Your task to perform on an android device: Search for "usb-a to usb-b" on bestbuy.com, select the first entry, add it to the cart, then select checkout. Image 0: 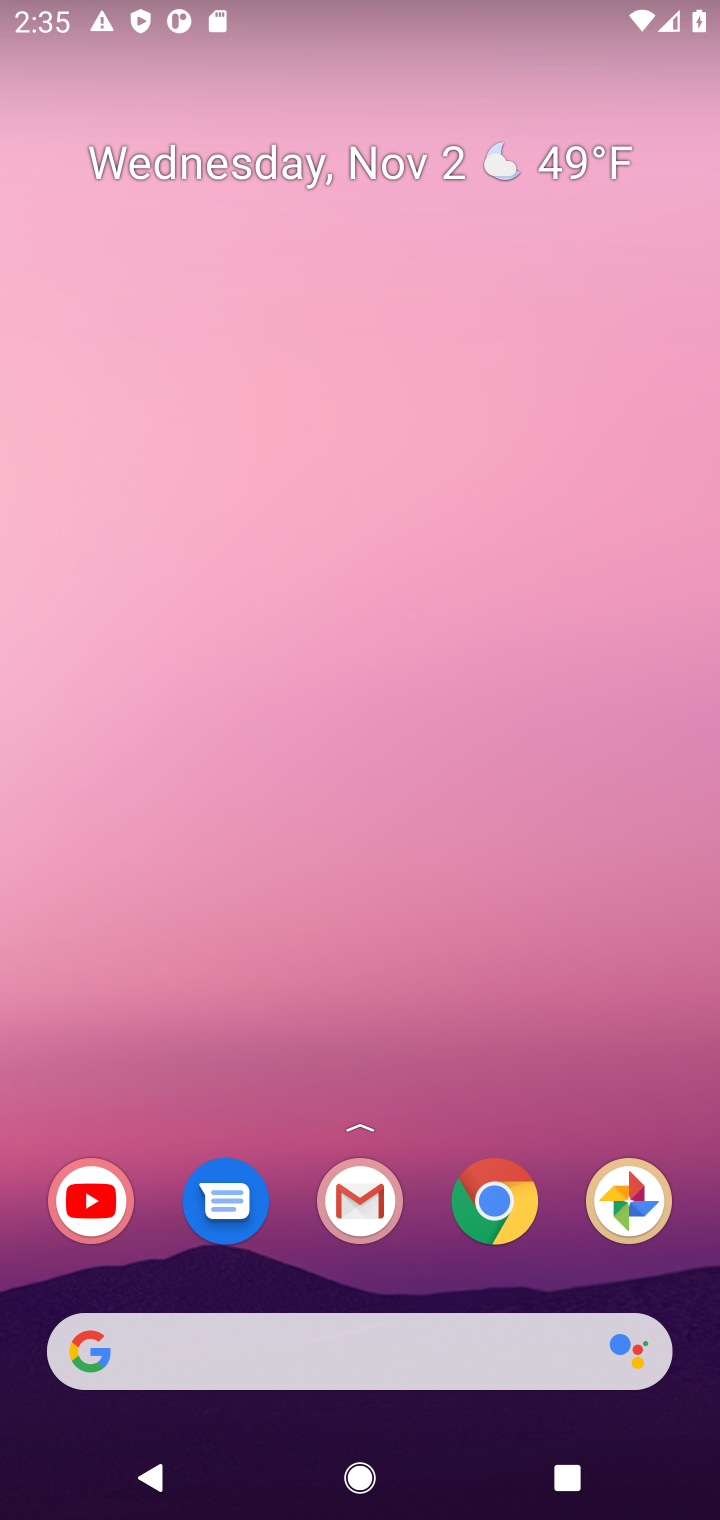
Step 0: click (487, 1199)
Your task to perform on an android device: Search for "usb-a to usb-b" on bestbuy.com, select the first entry, add it to the cart, then select checkout. Image 1: 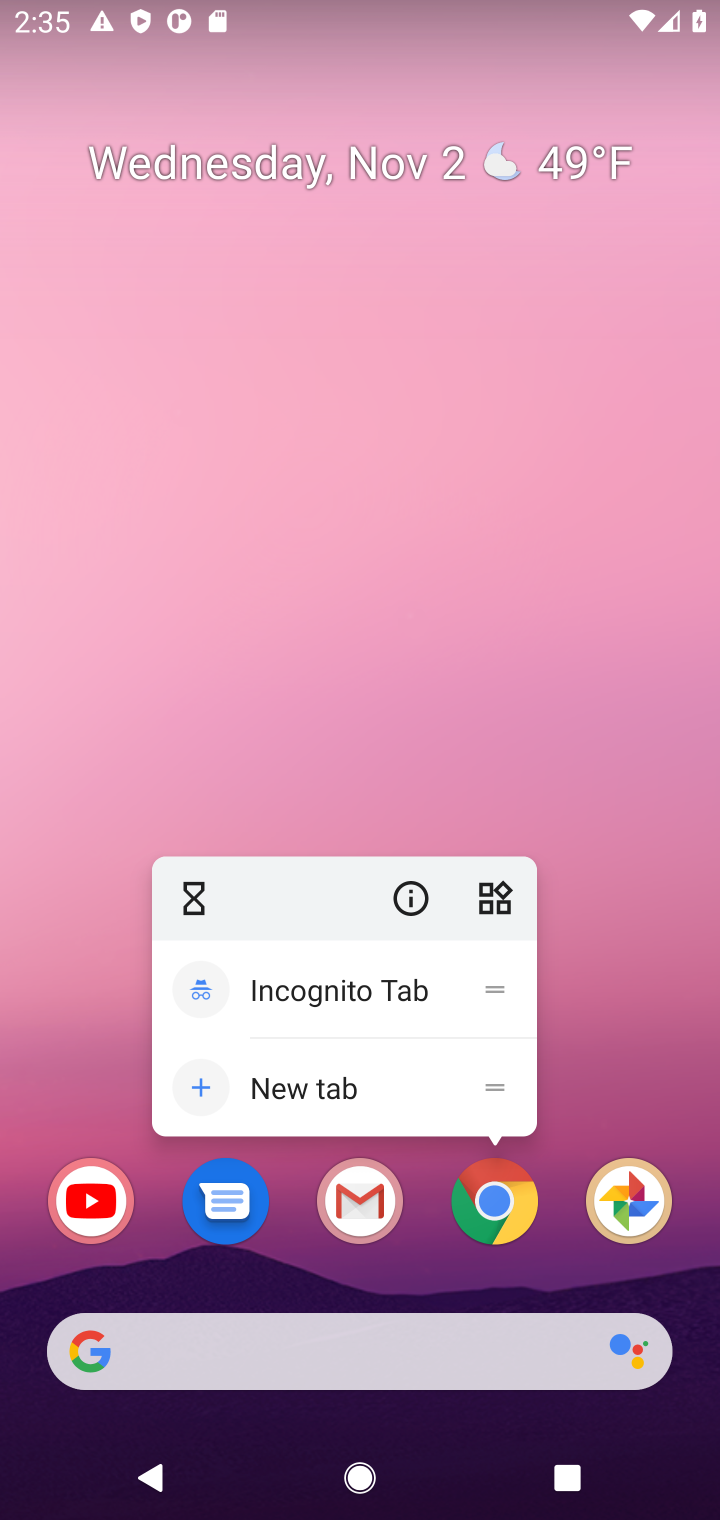
Step 1: click (503, 1204)
Your task to perform on an android device: Search for "usb-a to usb-b" on bestbuy.com, select the first entry, add it to the cart, then select checkout. Image 2: 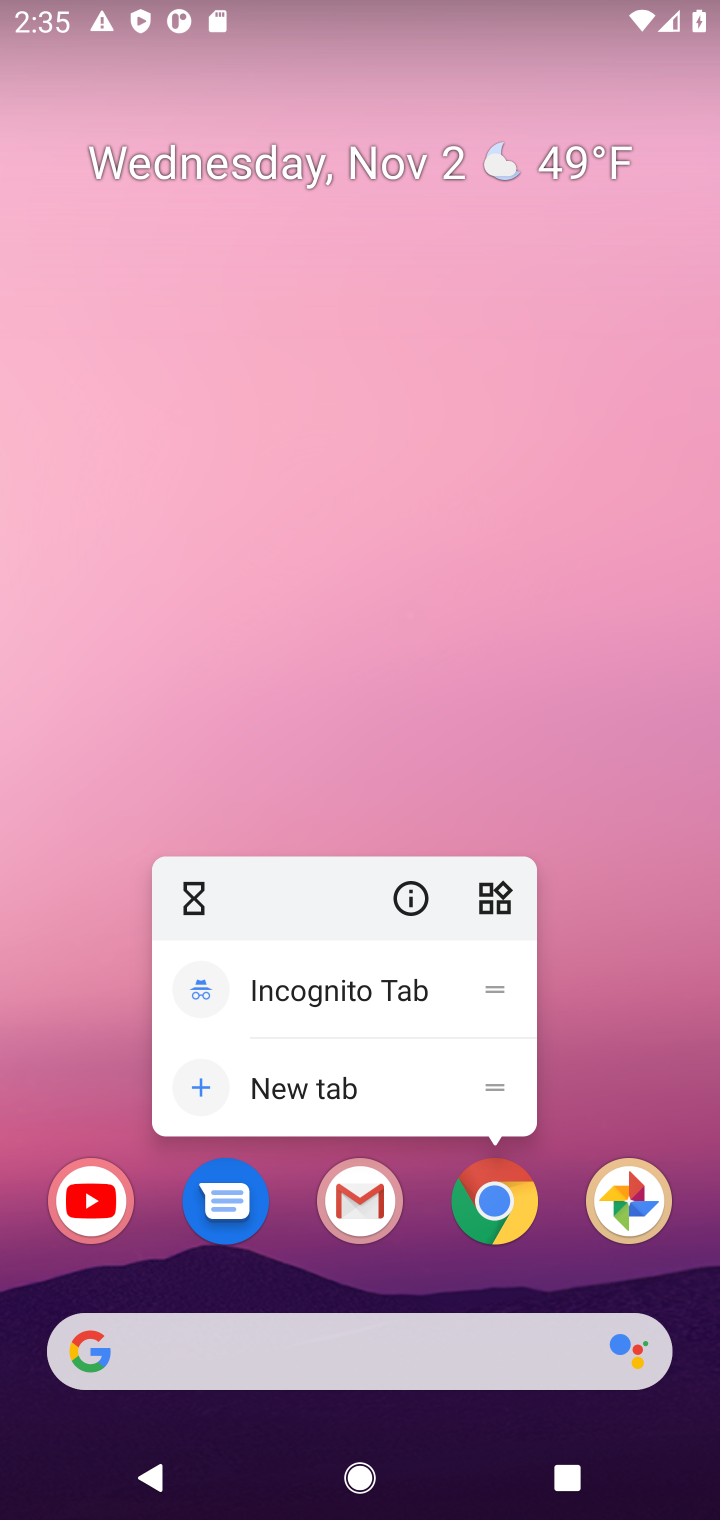
Step 2: click (502, 1205)
Your task to perform on an android device: Search for "usb-a to usb-b" on bestbuy.com, select the first entry, add it to the cart, then select checkout. Image 3: 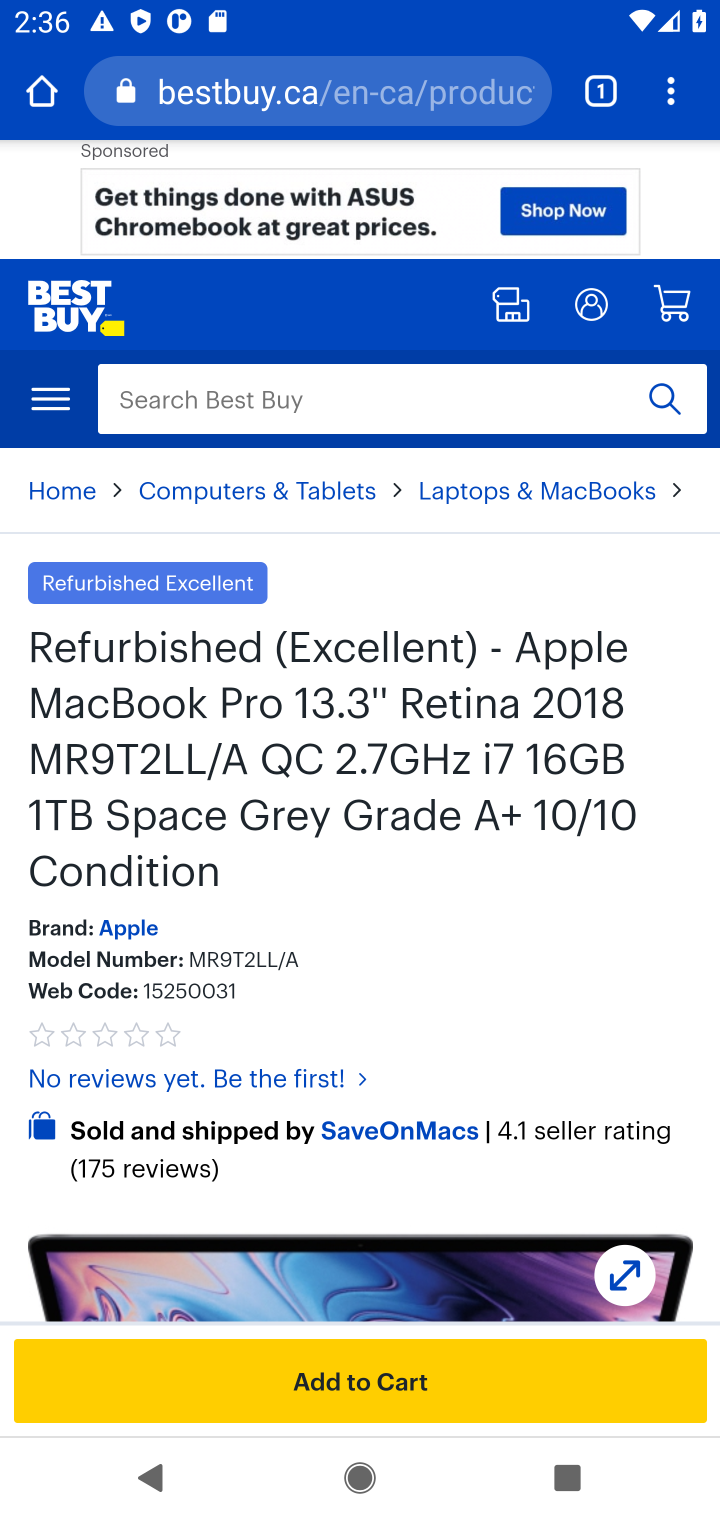
Step 3: click (226, 400)
Your task to perform on an android device: Search for "usb-a to usb-b" on bestbuy.com, select the first entry, add it to the cart, then select checkout. Image 4: 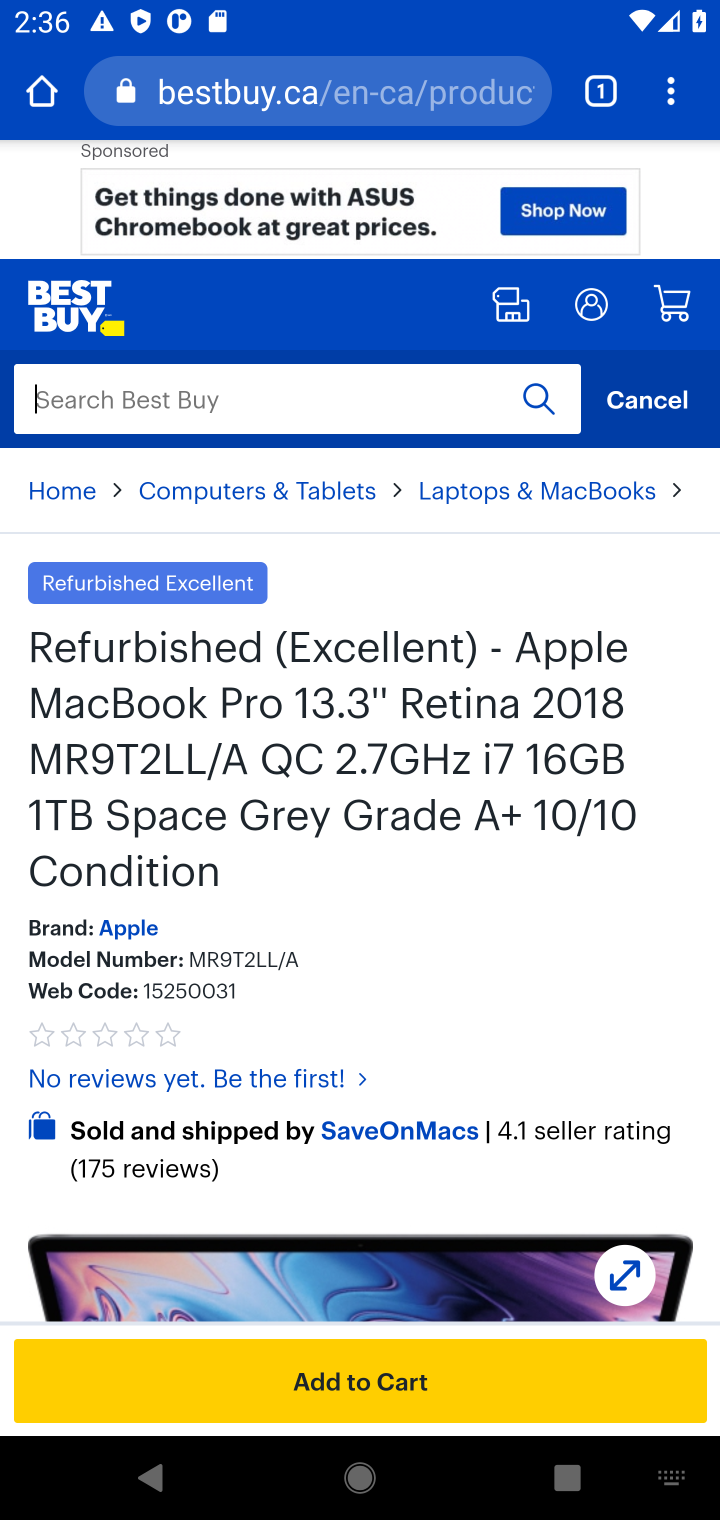
Step 4: press enter
Your task to perform on an android device: Search for "usb-a to usb-b" on bestbuy.com, select the first entry, add it to the cart, then select checkout. Image 5: 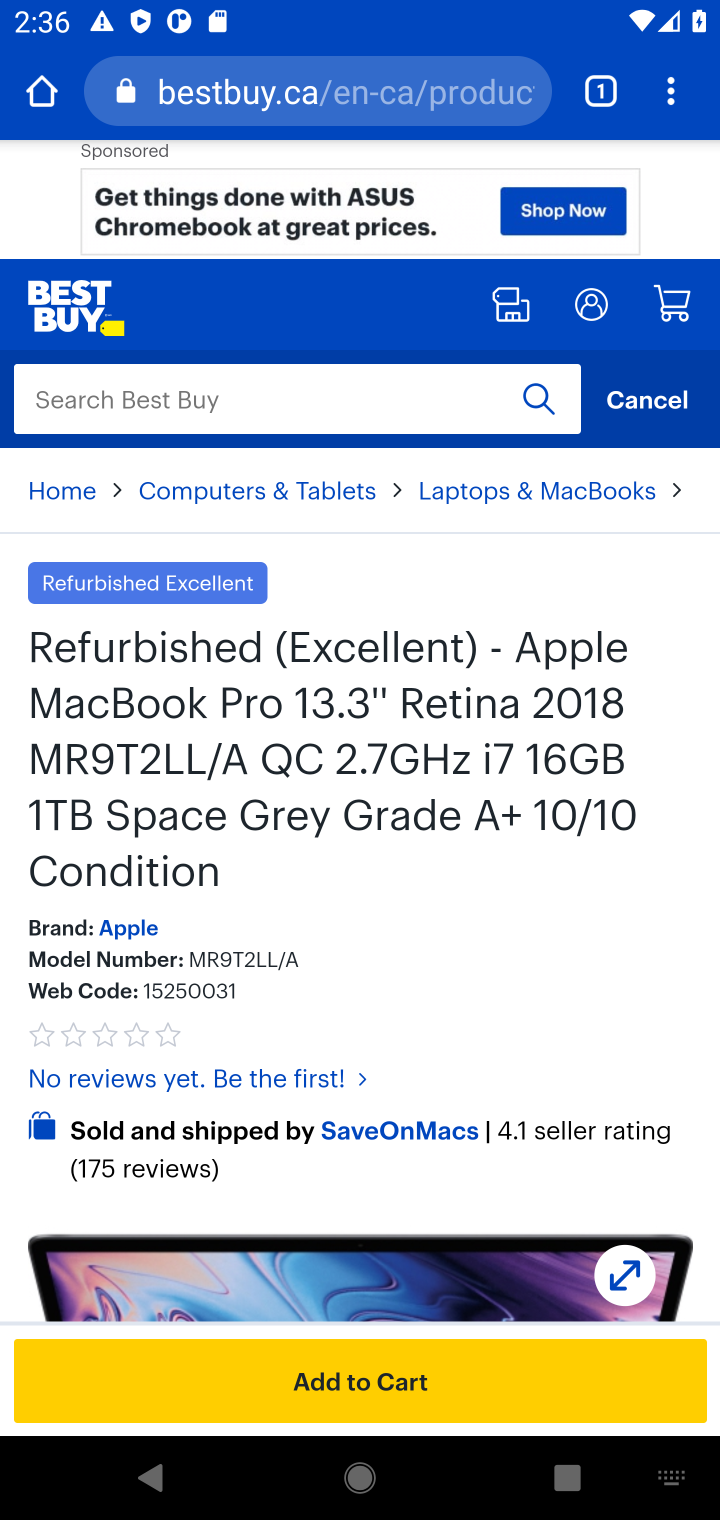
Step 5: type "usb-a to usb-b"
Your task to perform on an android device: Search for "usb-a to usb-b" on bestbuy.com, select the first entry, add it to the cart, then select checkout. Image 6: 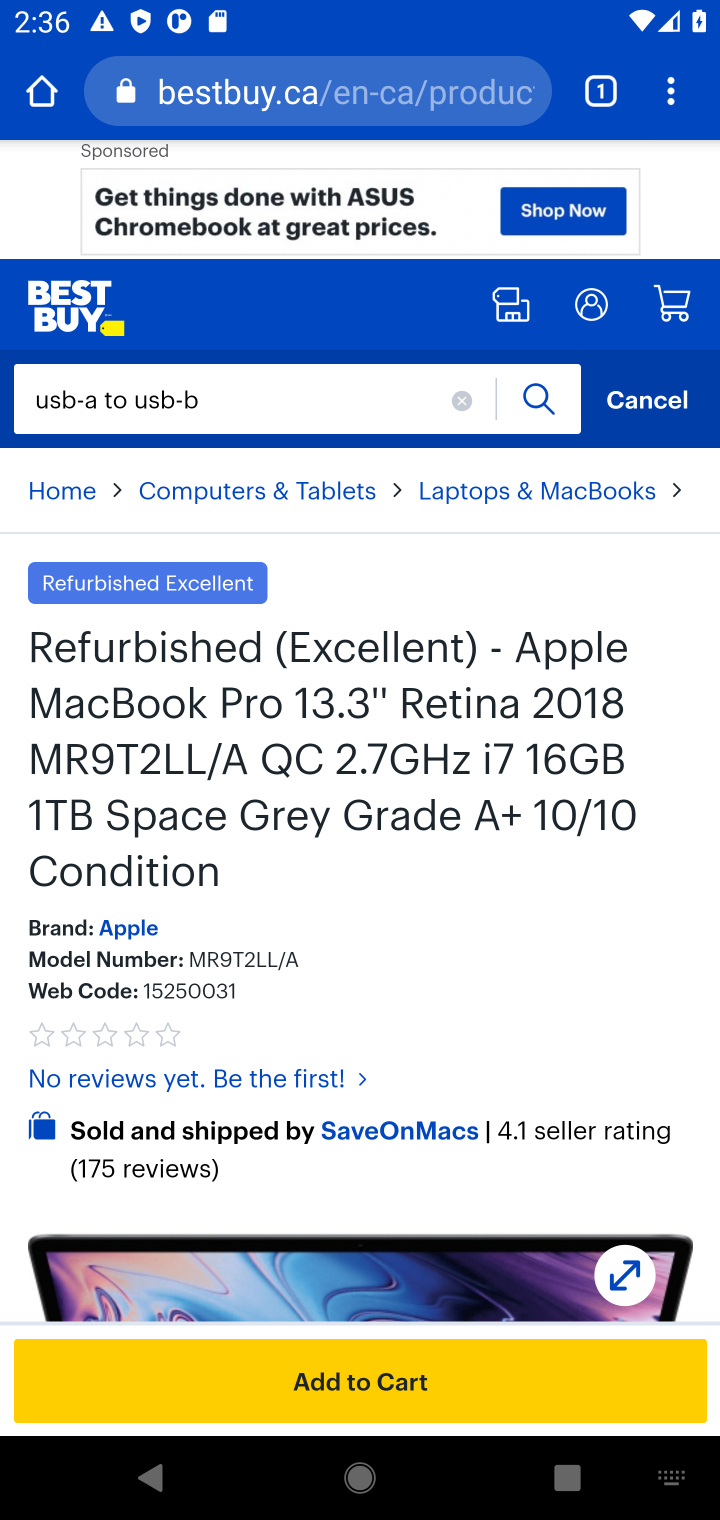
Step 6: press enter
Your task to perform on an android device: Search for "usb-a to usb-b" on bestbuy.com, select the first entry, add it to the cart, then select checkout. Image 7: 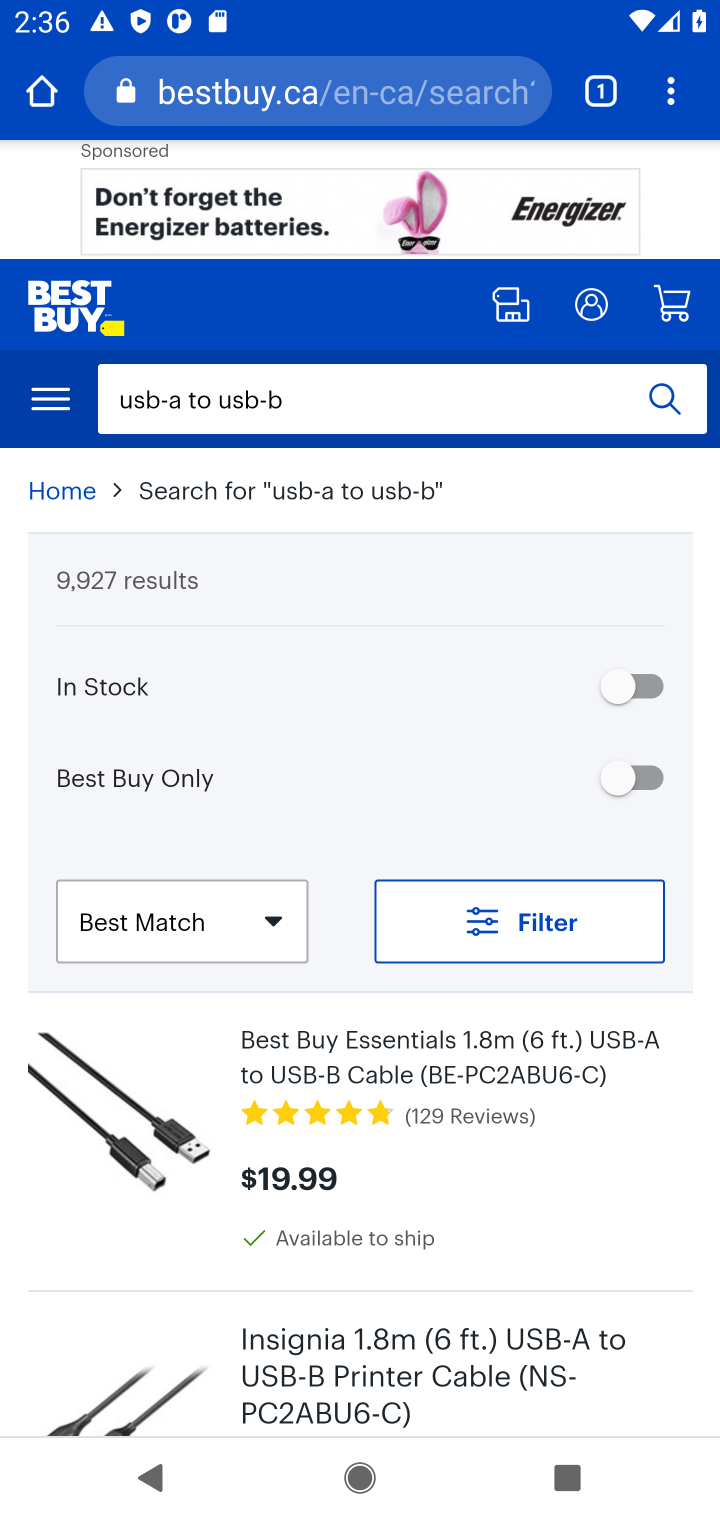
Step 7: click (452, 1085)
Your task to perform on an android device: Search for "usb-a to usb-b" on bestbuy.com, select the first entry, add it to the cart, then select checkout. Image 8: 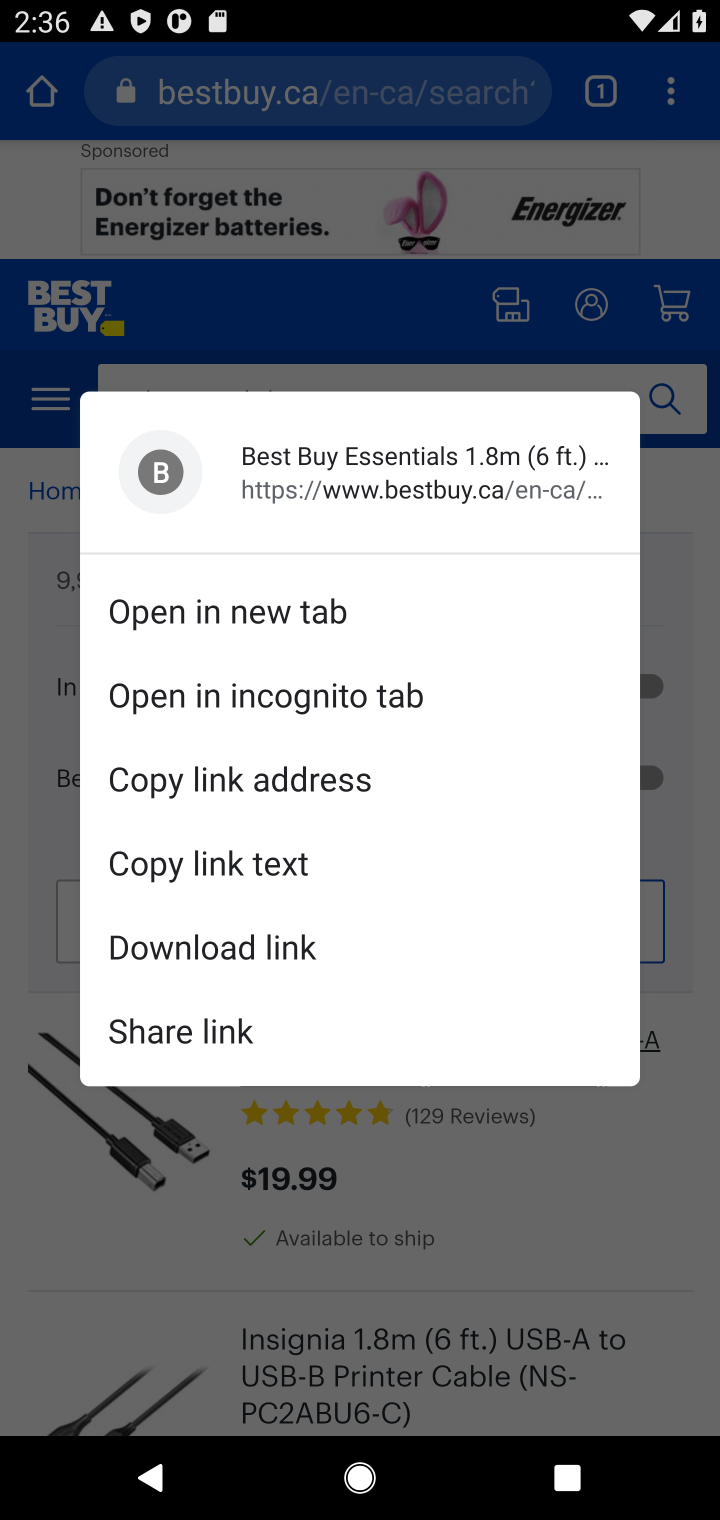
Step 8: click (452, 1104)
Your task to perform on an android device: Search for "usb-a to usb-b" on bestbuy.com, select the first entry, add it to the cart, then select checkout. Image 9: 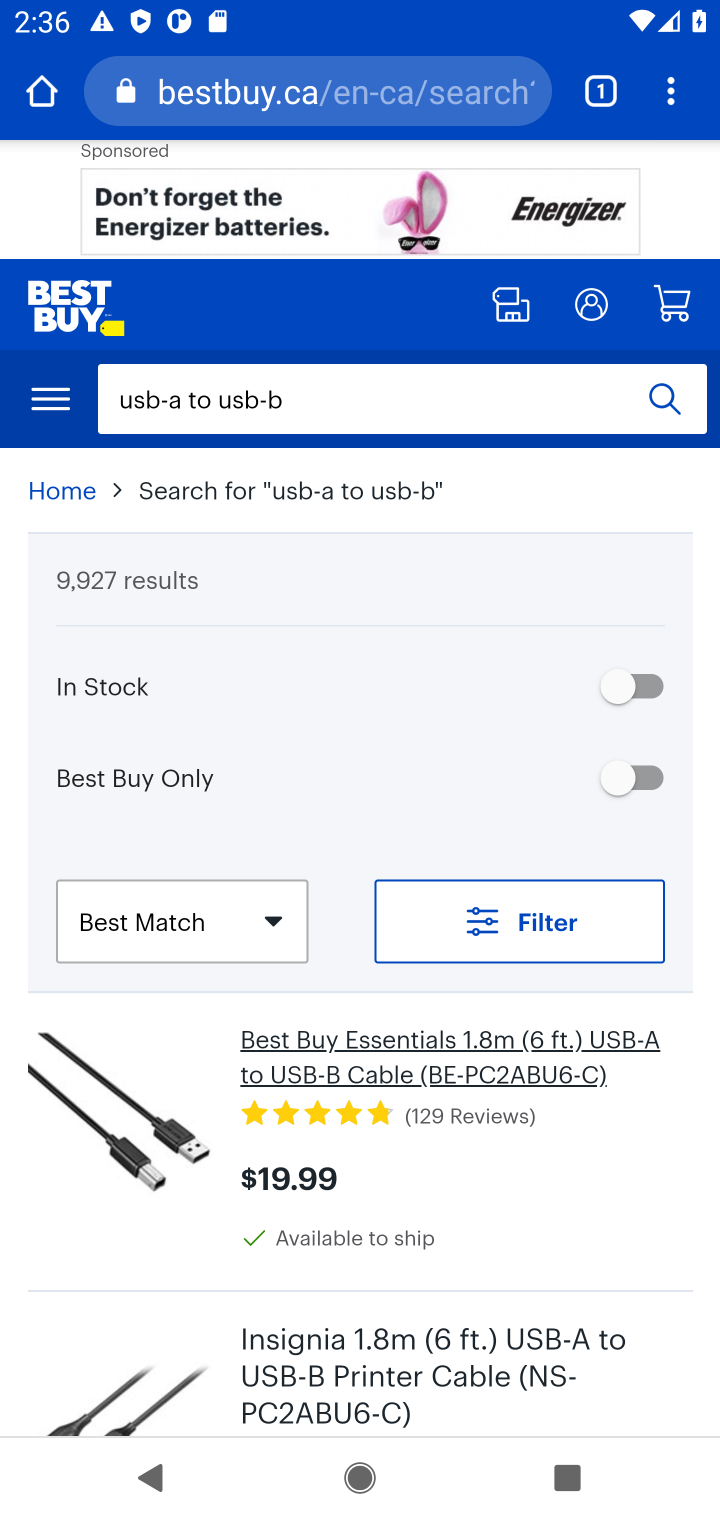
Step 9: click (395, 1027)
Your task to perform on an android device: Search for "usb-a to usb-b" on bestbuy.com, select the first entry, add it to the cart, then select checkout. Image 10: 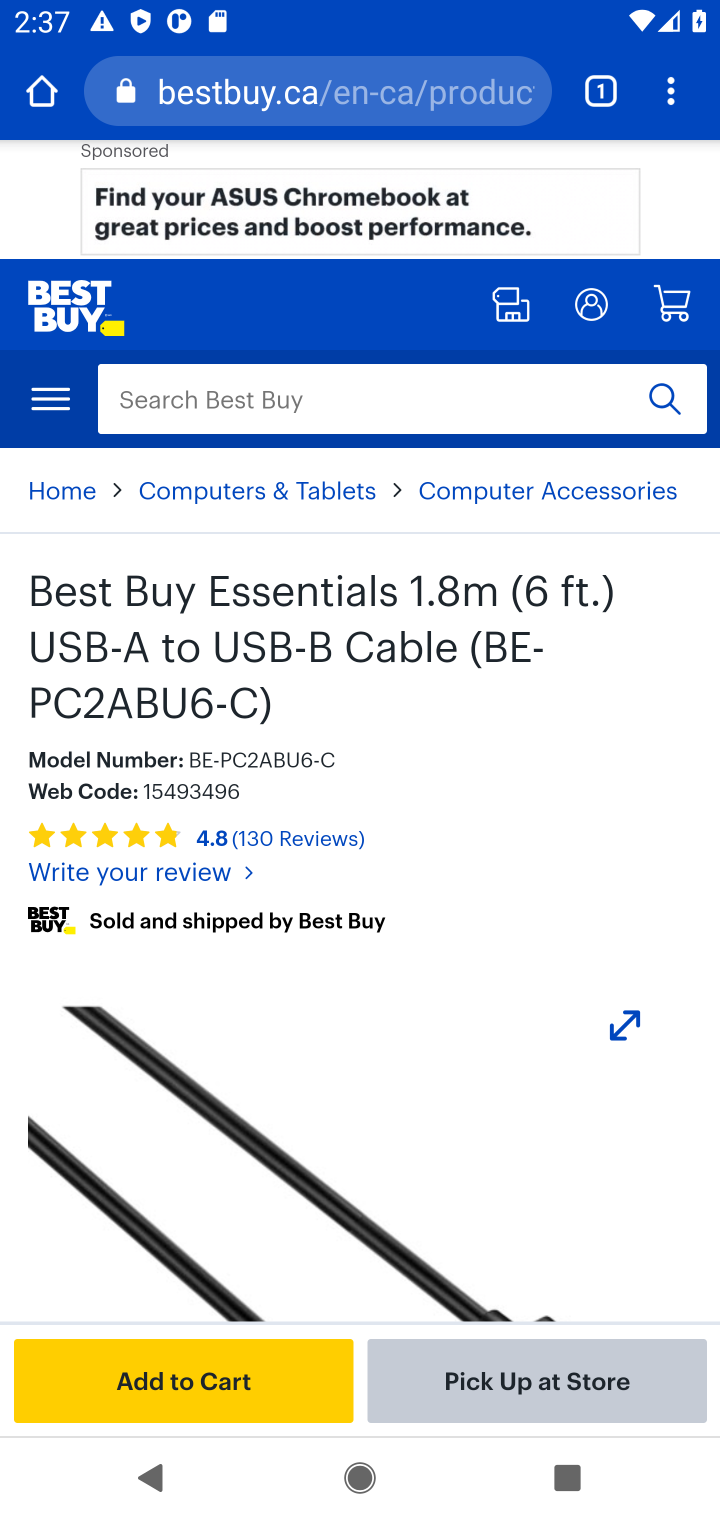
Step 10: click (181, 1386)
Your task to perform on an android device: Search for "usb-a to usb-b" on bestbuy.com, select the first entry, add it to the cart, then select checkout. Image 11: 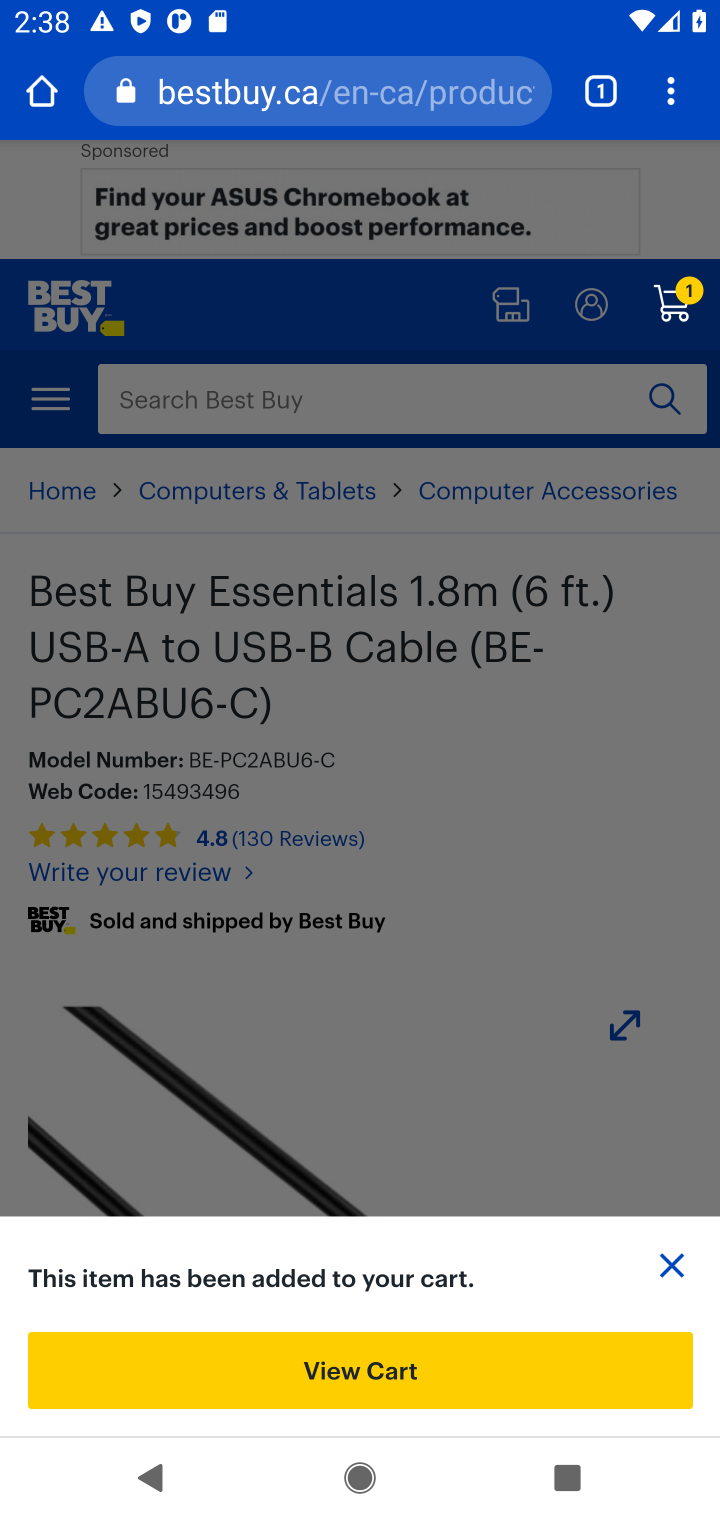
Step 11: click (670, 299)
Your task to perform on an android device: Search for "usb-a to usb-b" on bestbuy.com, select the first entry, add it to the cart, then select checkout. Image 12: 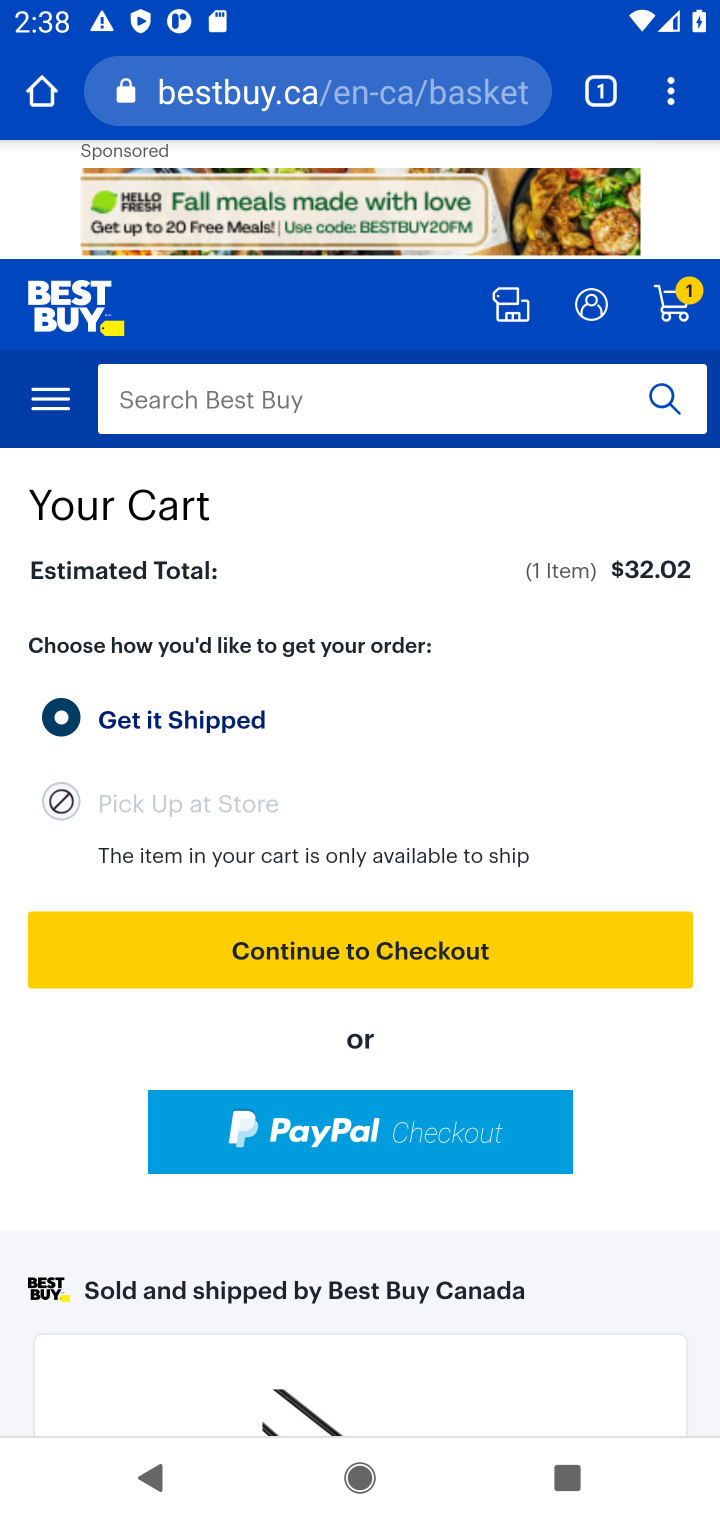
Step 12: click (392, 942)
Your task to perform on an android device: Search for "usb-a to usb-b" on bestbuy.com, select the first entry, add it to the cart, then select checkout. Image 13: 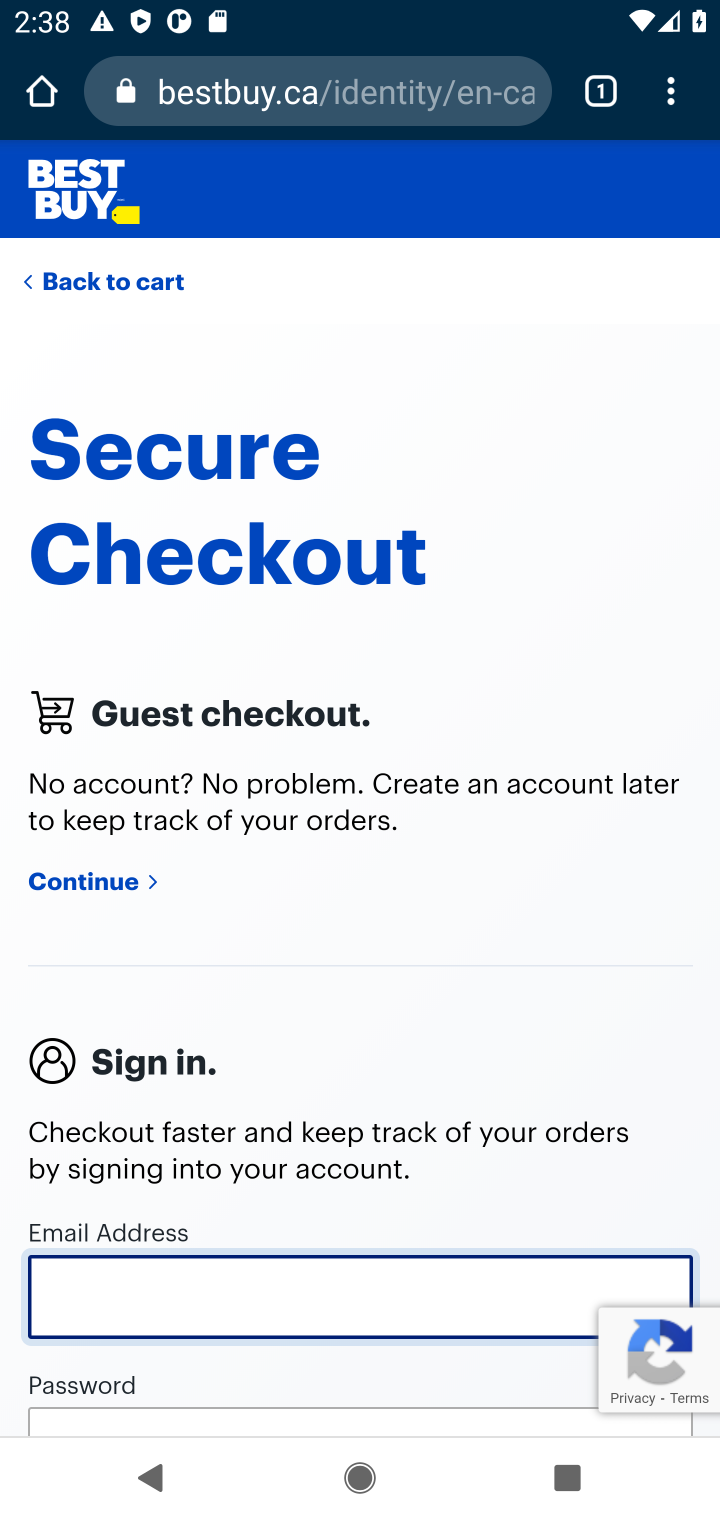
Step 13: task complete